Your task to perform on an android device: Go to settings Image 0: 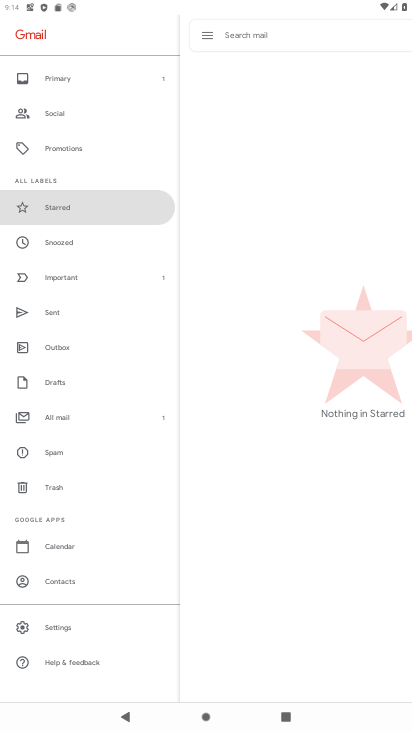
Step 0: press home button
Your task to perform on an android device: Go to settings Image 1: 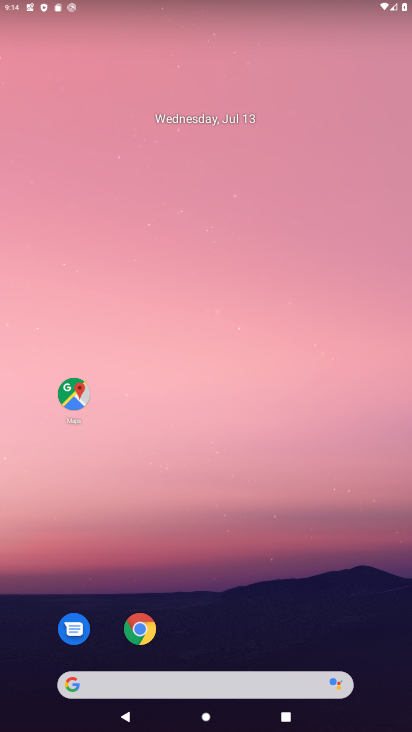
Step 1: drag from (205, 644) to (353, 12)
Your task to perform on an android device: Go to settings Image 2: 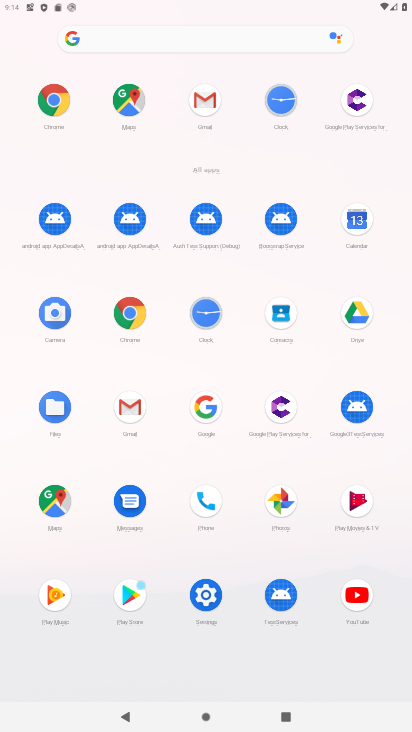
Step 2: click (213, 586)
Your task to perform on an android device: Go to settings Image 3: 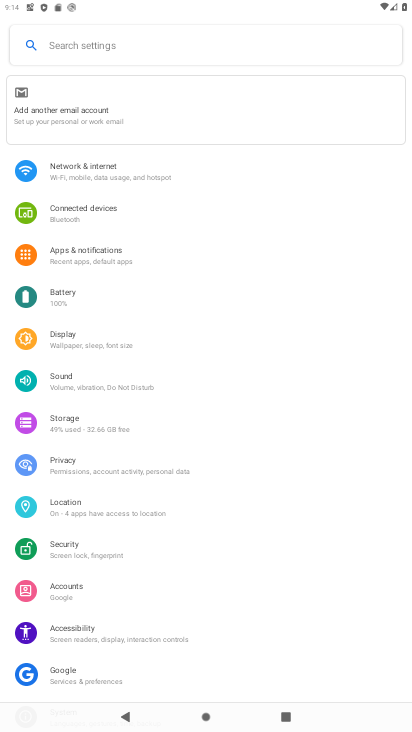
Step 3: task complete